Your task to perform on an android device: change the clock style Image 0: 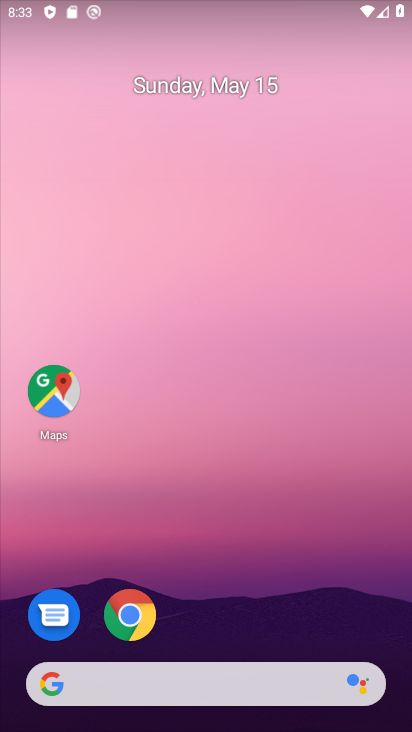
Step 0: drag from (277, 569) to (196, 0)
Your task to perform on an android device: change the clock style Image 1: 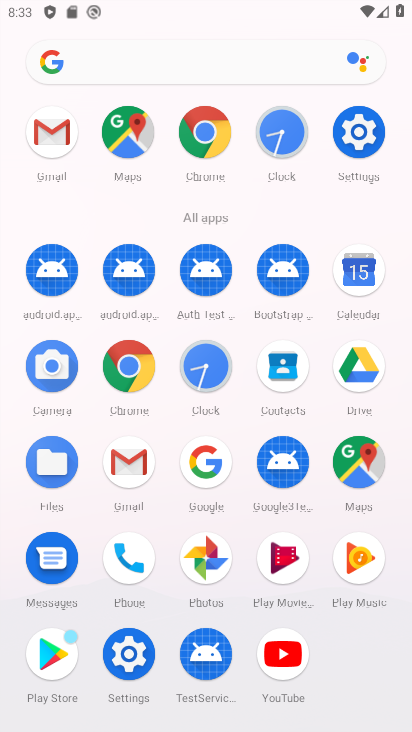
Step 1: drag from (12, 506) to (20, 330)
Your task to perform on an android device: change the clock style Image 2: 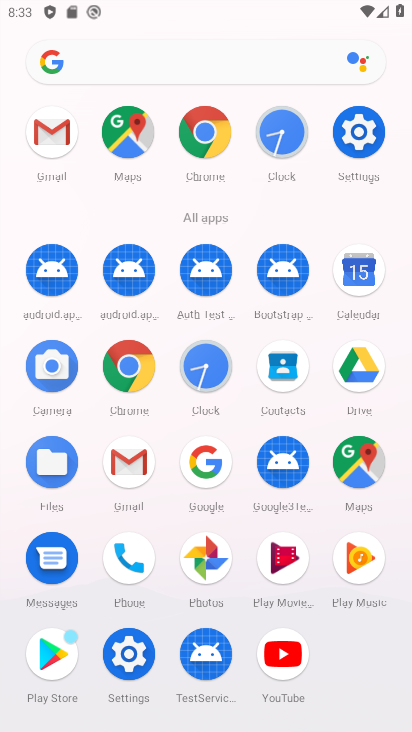
Step 2: click (279, 130)
Your task to perform on an android device: change the clock style Image 3: 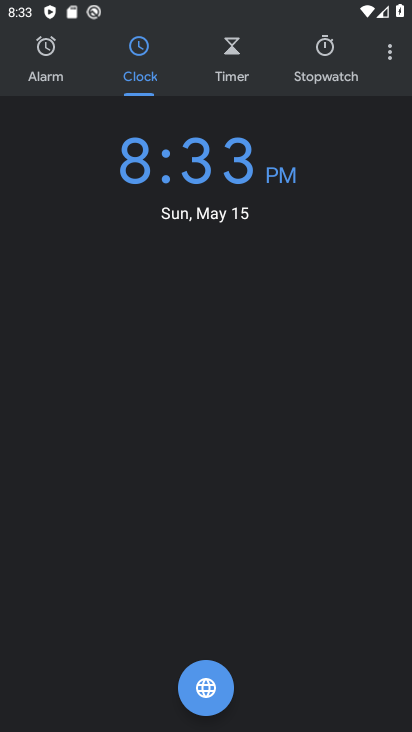
Step 3: drag from (389, 48) to (333, 97)
Your task to perform on an android device: change the clock style Image 4: 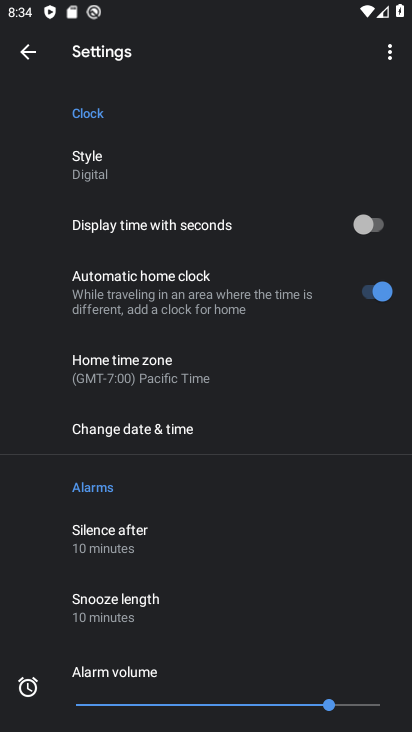
Step 4: drag from (40, 546) to (41, 289)
Your task to perform on an android device: change the clock style Image 5: 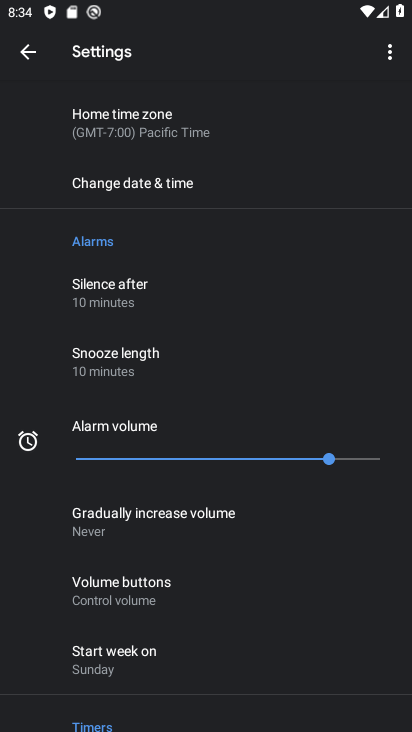
Step 5: drag from (240, 154) to (268, 562)
Your task to perform on an android device: change the clock style Image 6: 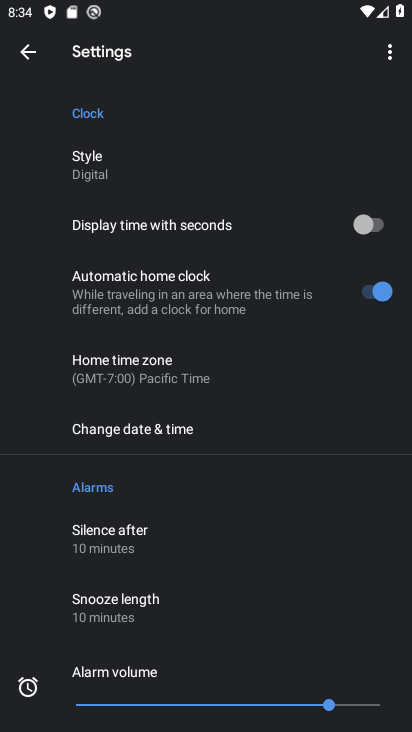
Step 6: click (140, 154)
Your task to perform on an android device: change the clock style Image 7: 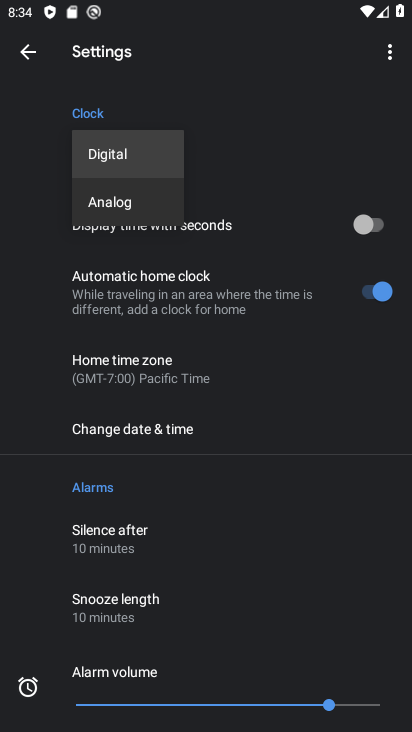
Step 7: click (128, 188)
Your task to perform on an android device: change the clock style Image 8: 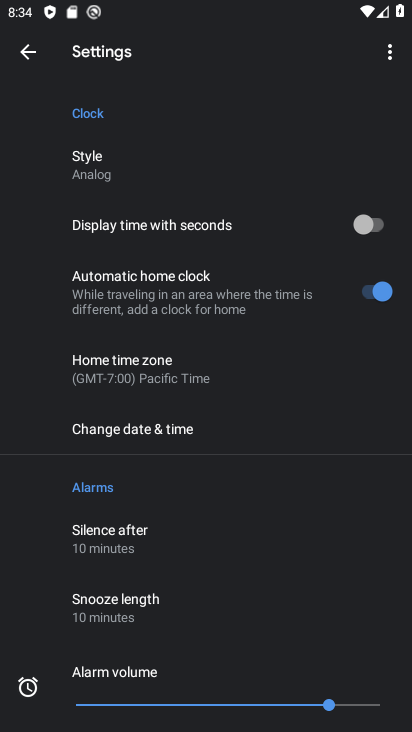
Step 8: task complete